Your task to perform on an android device: Go to internet settings Image 0: 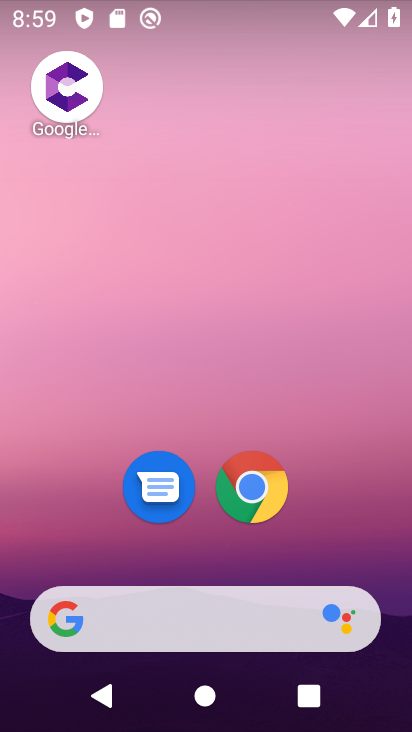
Step 0: drag from (227, 725) to (227, 101)
Your task to perform on an android device: Go to internet settings Image 1: 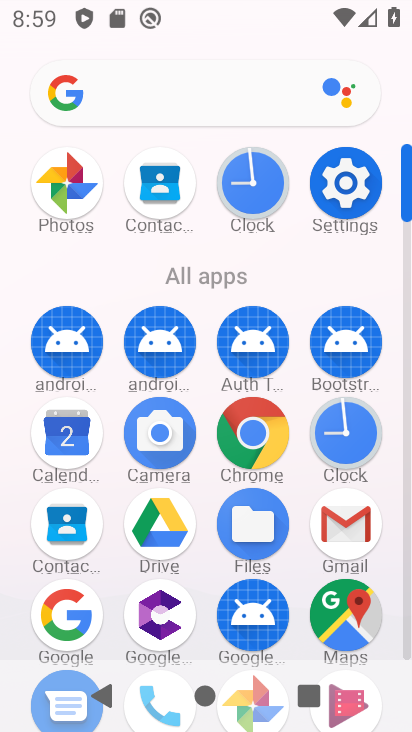
Step 1: click (337, 182)
Your task to perform on an android device: Go to internet settings Image 2: 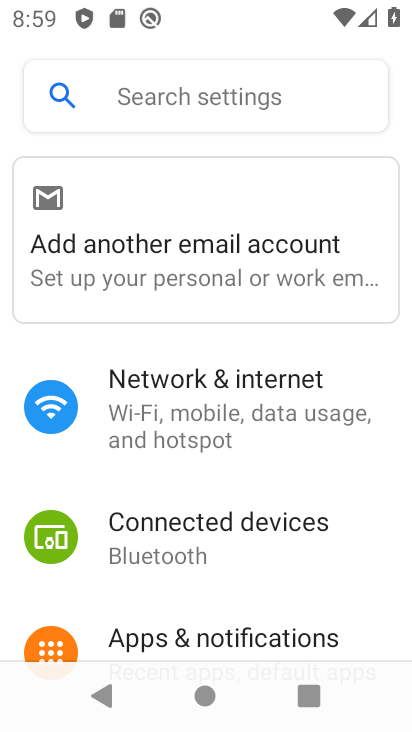
Step 2: click (165, 401)
Your task to perform on an android device: Go to internet settings Image 3: 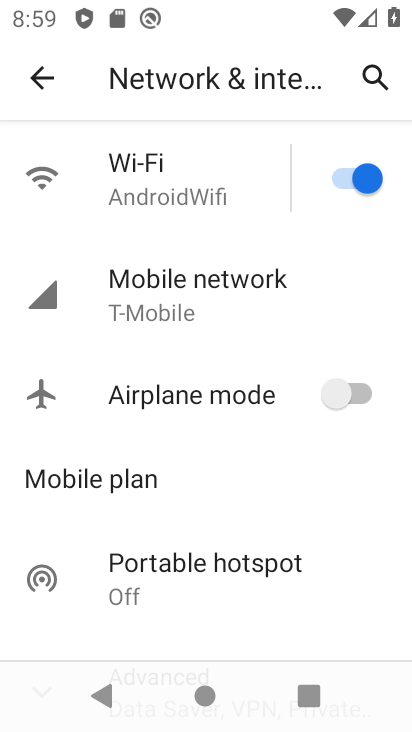
Step 3: task complete